Your task to perform on an android device: turn off notifications settings in the gmail app Image 0: 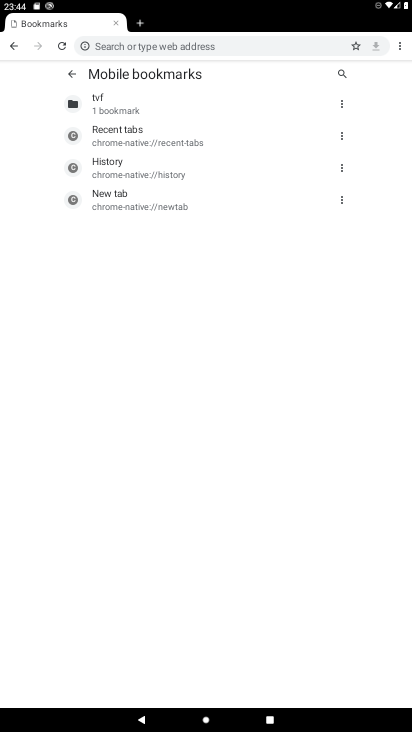
Step 0: press home button
Your task to perform on an android device: turn off notifications settings in the gmail app Image 1: 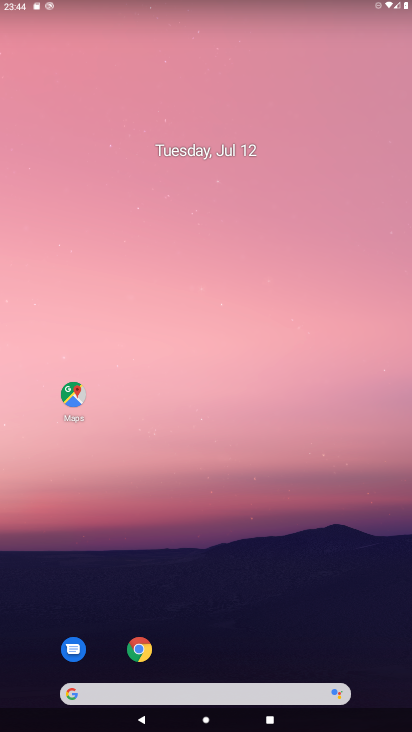
Step 1: drag from (379, 664) to (302, 208)
Your task to perform on an android device: turn off notifications settings in the gmail app Image 2: 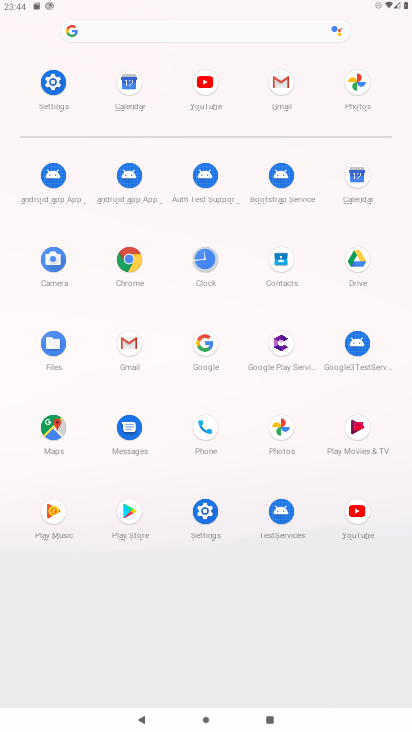
Step 2: click (131, 343)
Your task to perform on an android device: turn off notifications settings in the gmail app Image 3: 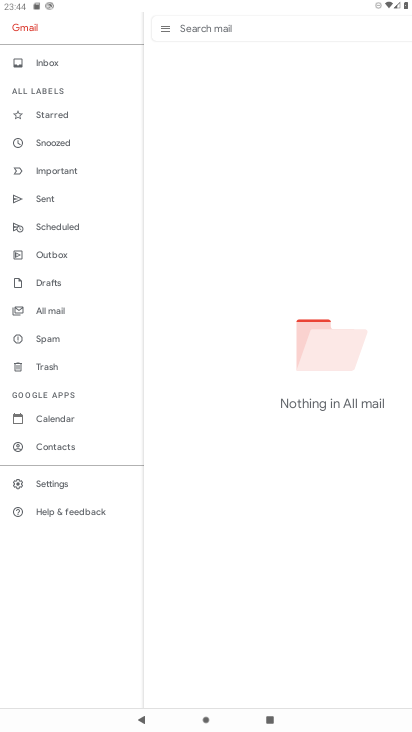
Step 3: click (54, 478)
Your task to perform on an android device: turn off notifications settings in the gmail app Image 4: 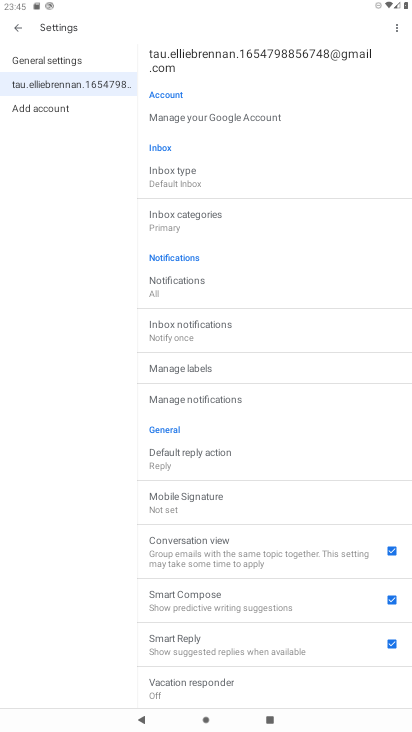
Step 4: click (194, 391)
Your task to perform on an android device: turn off notifications settings in the gmail app Image 5: 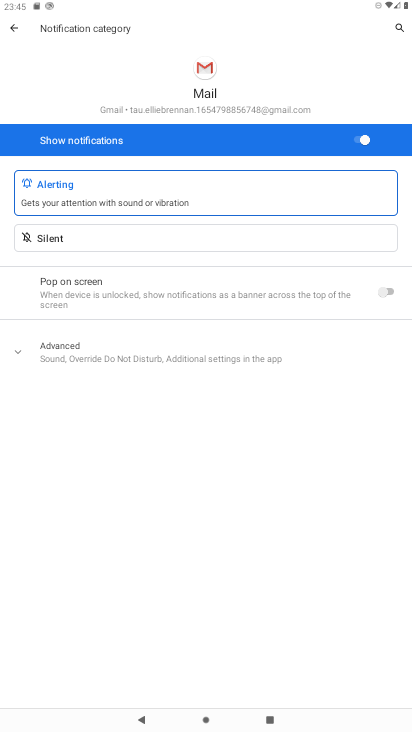
Step 5: click (356, 140)
Your task to perform on an android device: turn off notifications settings in the gmail app Image 6: 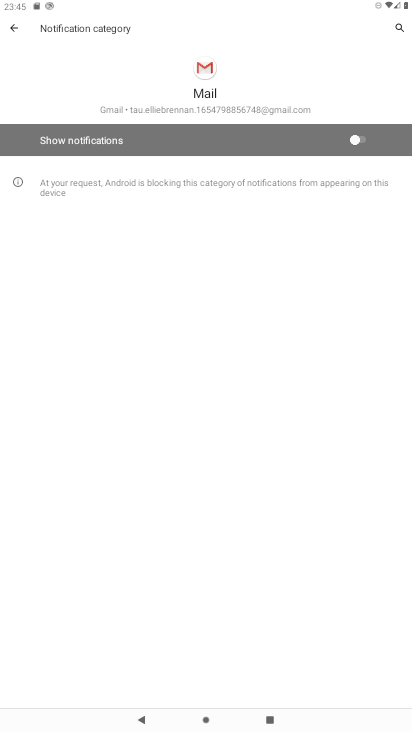
Step 6: task complete